Your task to perform on an android device: Go to Google maps Image 0: 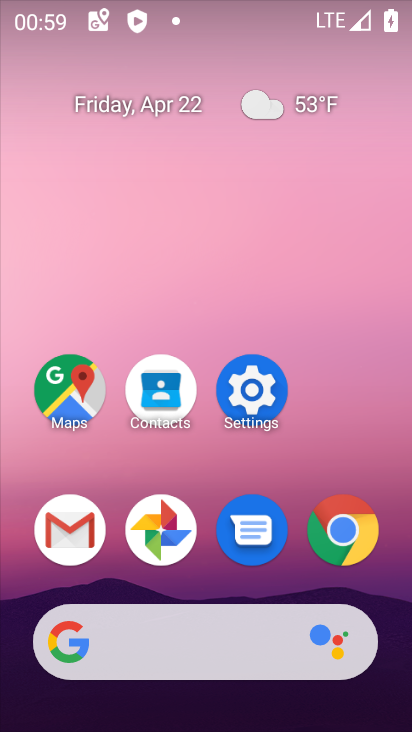
Step 0: click (73, 390)
Your task to perform on an android device: Go to Google maps Image 1: 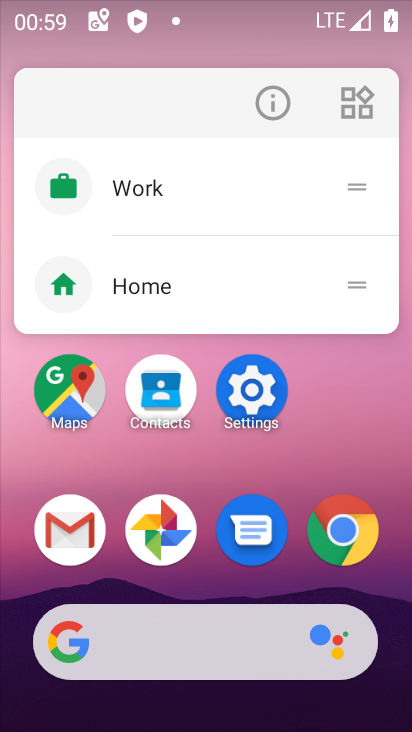
Step 1: click (47, 392)
Your task to perform on an android device: Go to Google maps Image 2: 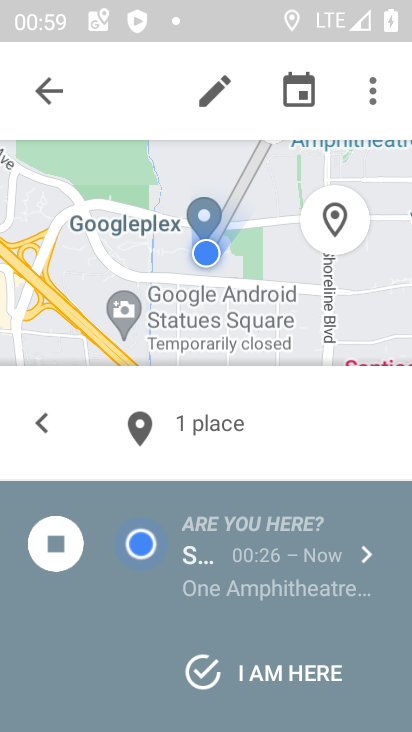
Step 2: task complete